Your task to perform on an android device: Check the news Image 0: 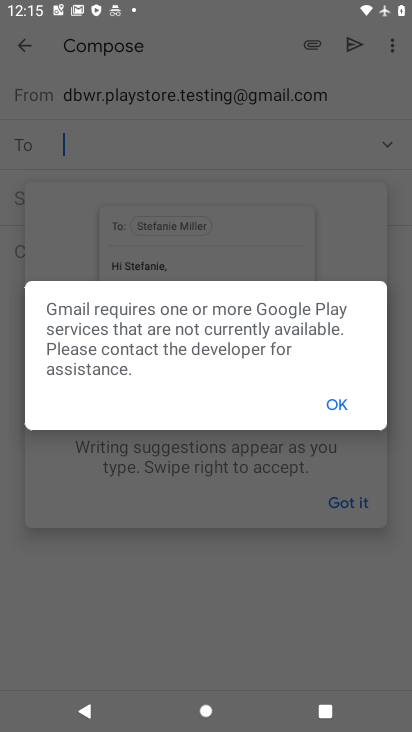
Step 0: press home button
Your task to perform on an android device: Check the news Image 1: 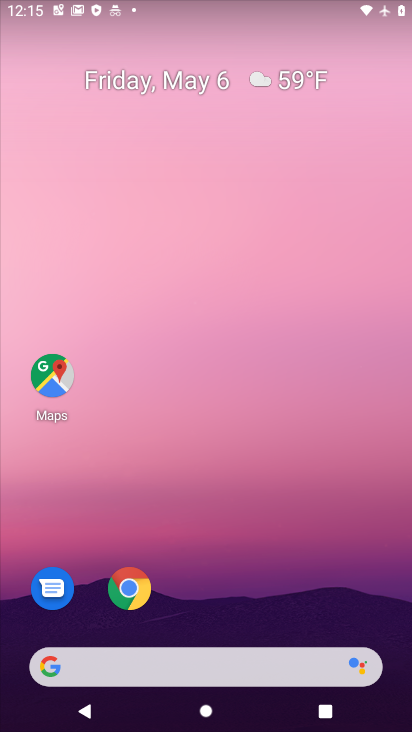
Step 1: task complete